Your task to perform on an android device: Search for vegetarian restaurants on Maps Image 0: 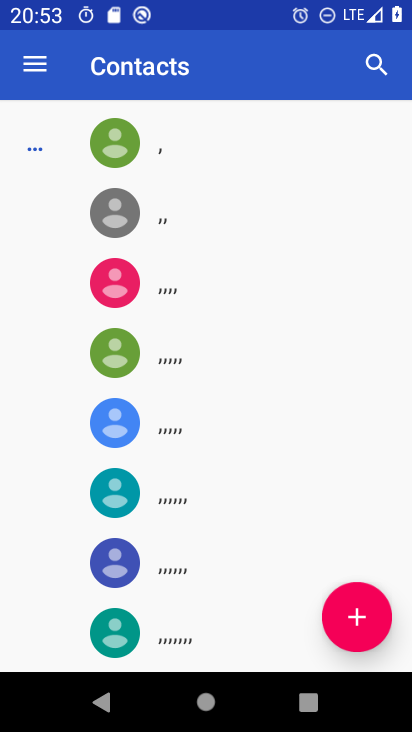
Step 0: press home button
Your task to perform on an android device: Search for vegetarian restaurants on Maps Image 1: 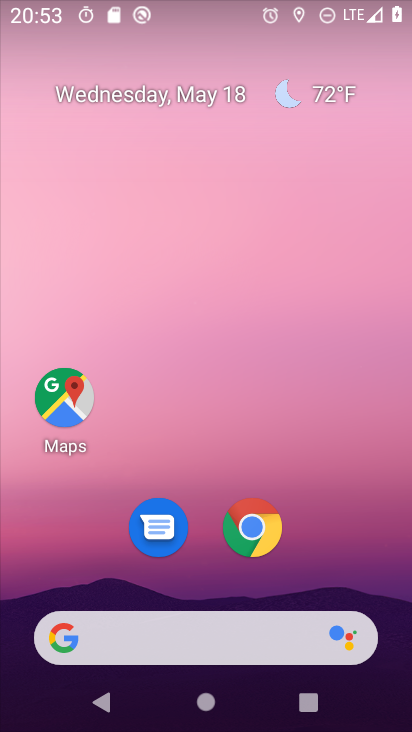
Step 1: click (55, 393)
Your task to perform on an android device: Search for vegetarian restaurants on Maps Image 2: 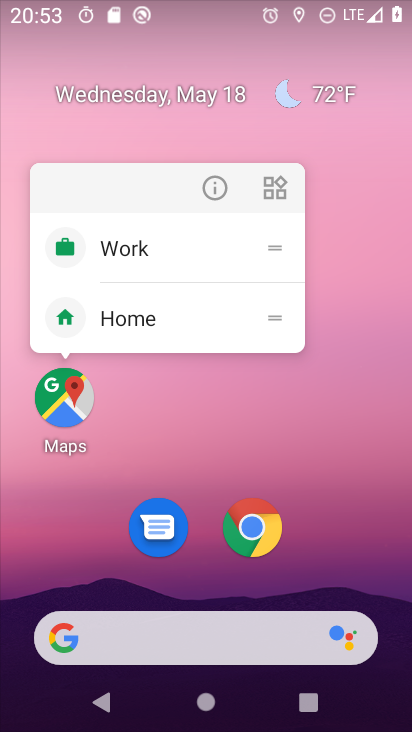
Step 2: click (33, 415)
Your task to perform on an android device: Search for vegetarian restaurants on Maps Image 3: 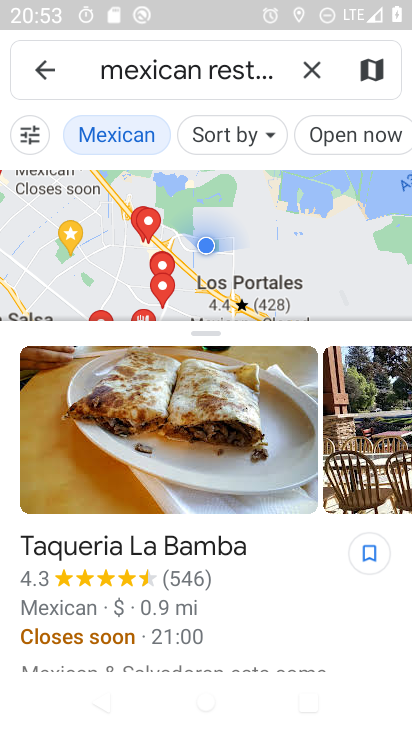
Step 3: click (304, 64)
Your task to perform on an android device: Search for vegetarian restaurants on Maps Image 4: 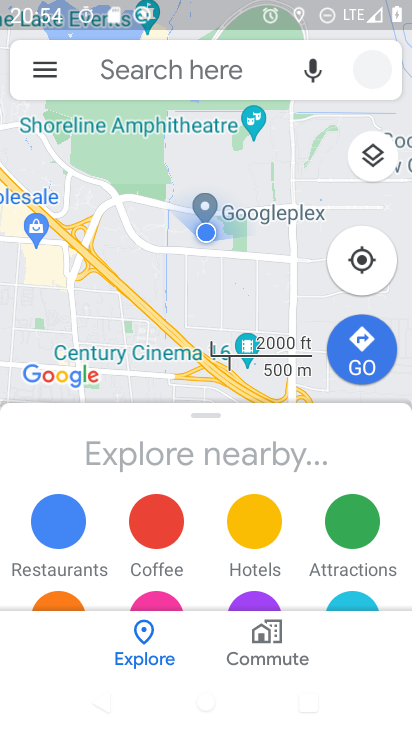
Step 4: click (231, 69)
Your task to perform on an android device: Search for vegetarian restaurants on Maps Image 5: 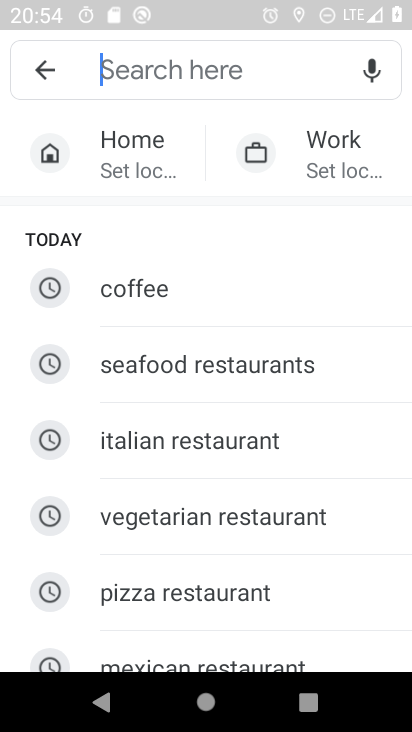
Step 5: type "vegetarian restaurants"
Your task to perform on an android device: Search for vegetarian restaurants on Maps Image 6: 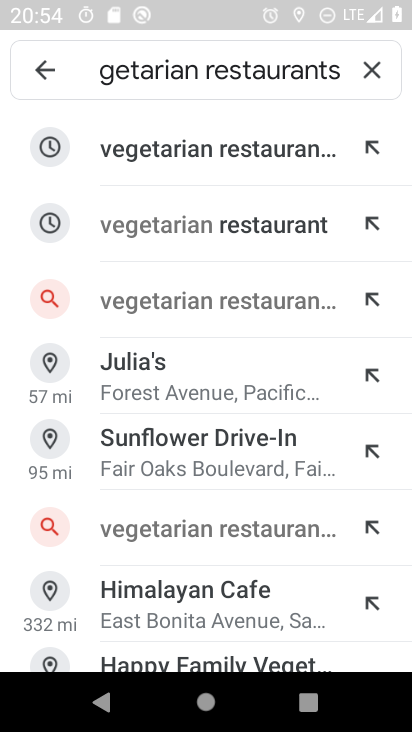
Step 6: click (227, 154)
Your task to perform on an android device: Search for vegetarian restaurants on Maps Image 7: 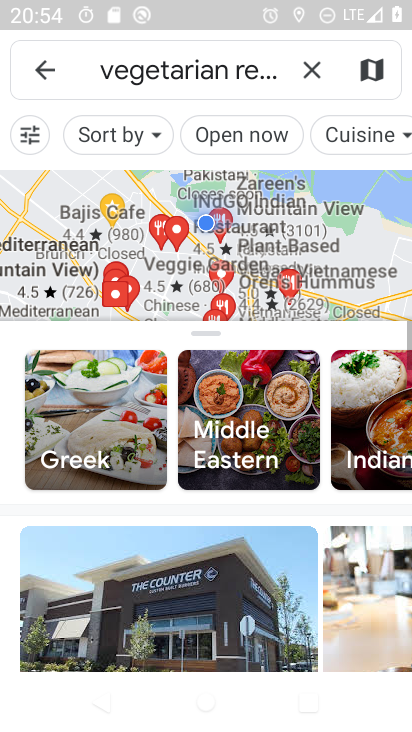
Step 7: task complete